Your task to perform on an android device: refresh tabs in the chrome app Image 0: 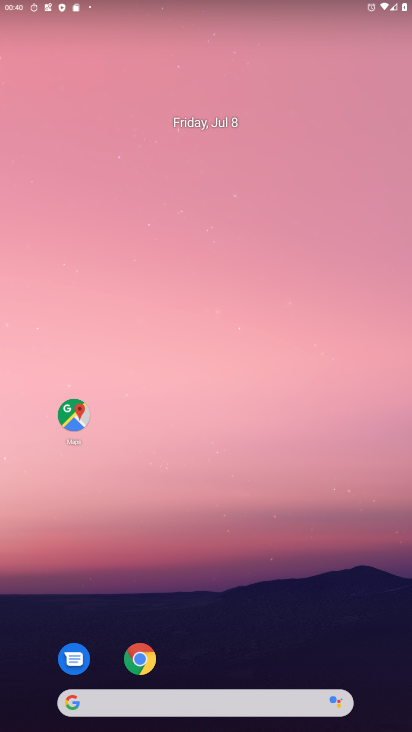
Step 0: click (139, 655)
Your task to perform on an android device: refresh tabs in the chrome app Image 1: 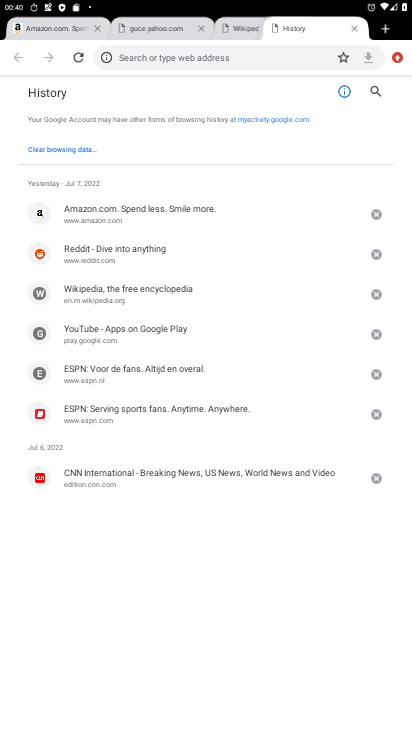
Step 1: click (76, 55)
Your task to perform on an android device: refresh tabs in the chrome app Image 2: 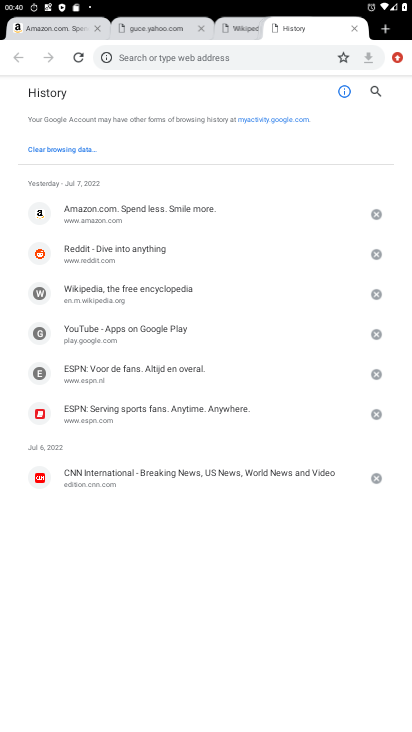
Step 2: task complete